Your task to perform on an android device: Search for vegetarian restaurants on Maps Image 0: 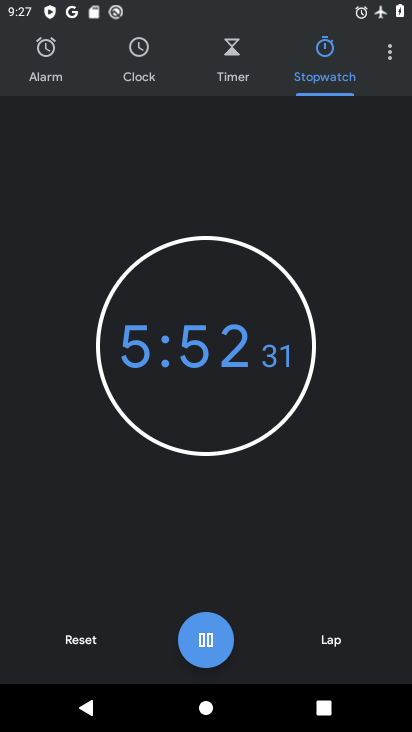
Step 0: click (80, 657)
Your task to perform on an android device: Search for vegetarian restaurants on Maps Image 1: 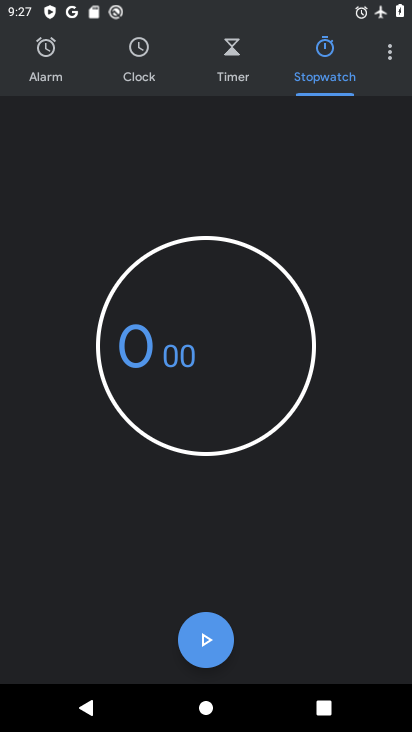
Step 1: press home button
Your task to perform on an android device: Search for vegetarian restaurants on Maps Image 2: 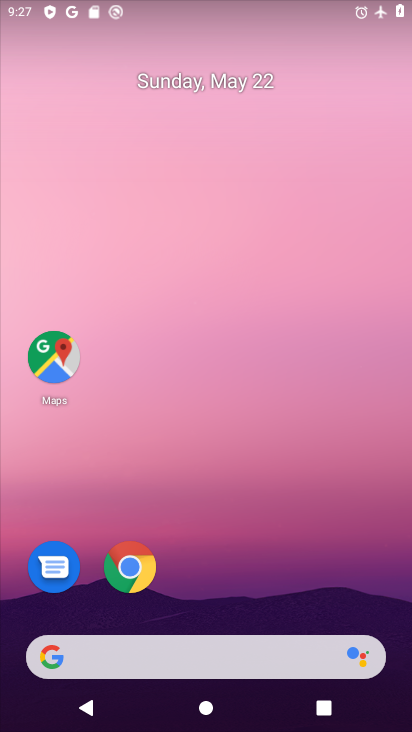
Step 2: click (69, 370)
Your task to perform on an android device: Search for vegetarian restaurants on Maps Image 3: 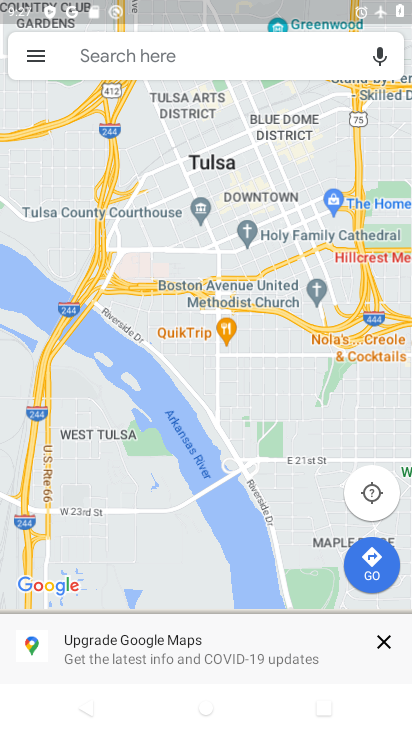
Step 3: click (201, 60)
Your task to perform on an android device: Search for vegetarian restaurants on Maps Image 4: 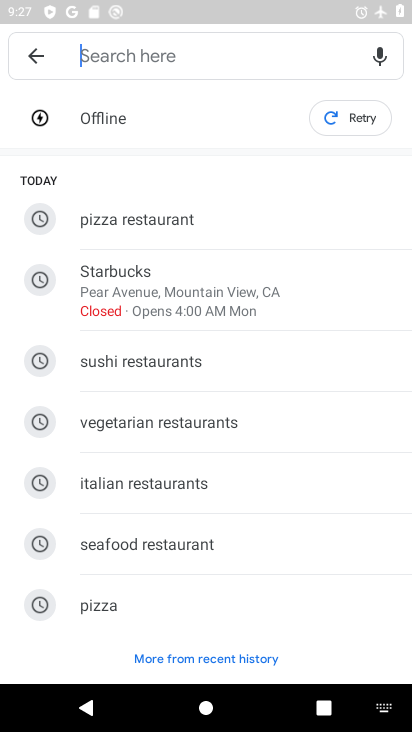
Step 4: type "Vegetarian restaurants"
Your task to perform on an android device: Search for vegetarian restaurants on Maps Image 5: 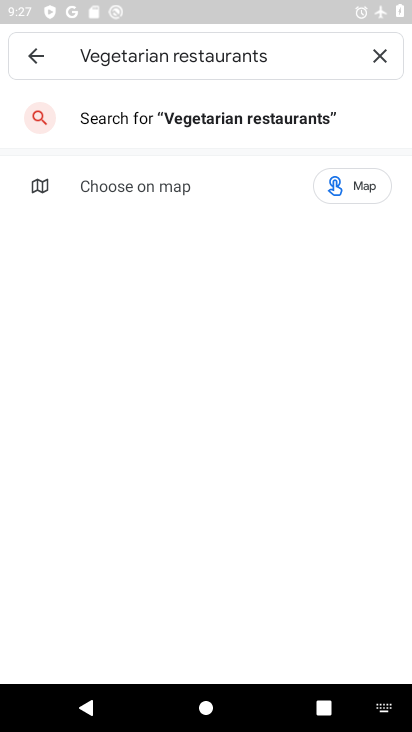
Step 5: click (278, 131)
Your task to perform on an android device: Search for vegetarian restaurants on Maps Image 6: 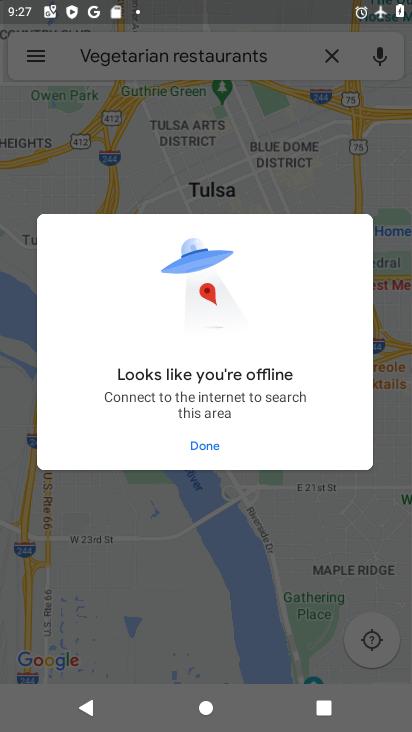
Step 6: click (202, 442)
Your task to perform on an android device: Search for vegetarian restaurants on Maps Image 7: 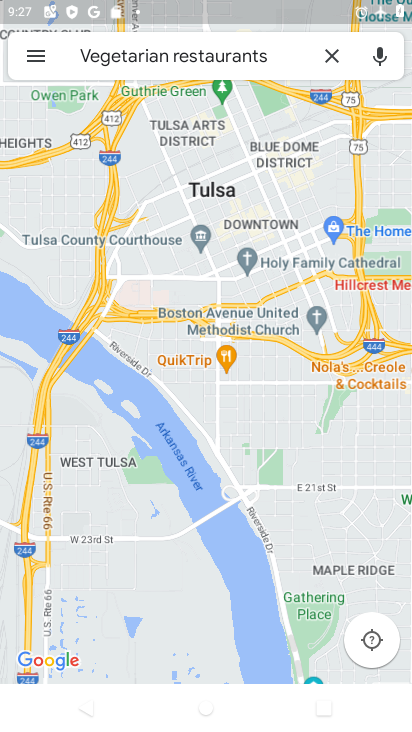
Step 7: task complete